Your task to perform on an android device: turn on wifi Image 0: 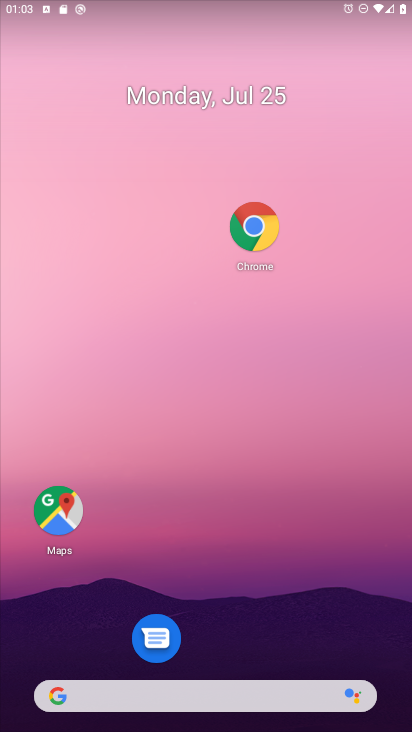
Step 0: drag from (121, 71) to (104, 710)
Your task to perform on an android device: turn on wifi Image 1: 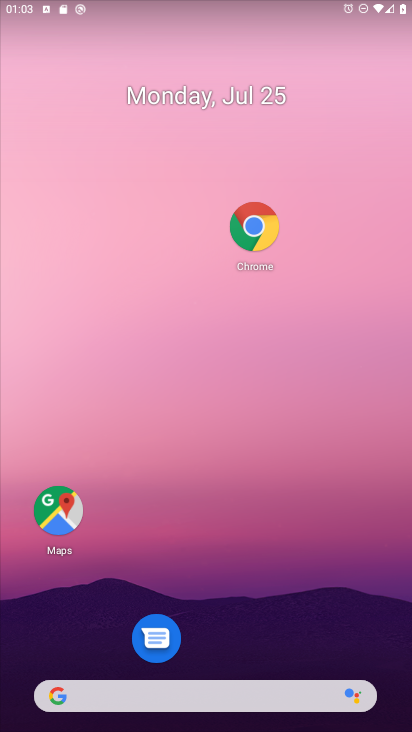
Step 1: task complete